Your task to perform on an android device: open chrome and create a bookmark for the current page Image 0: 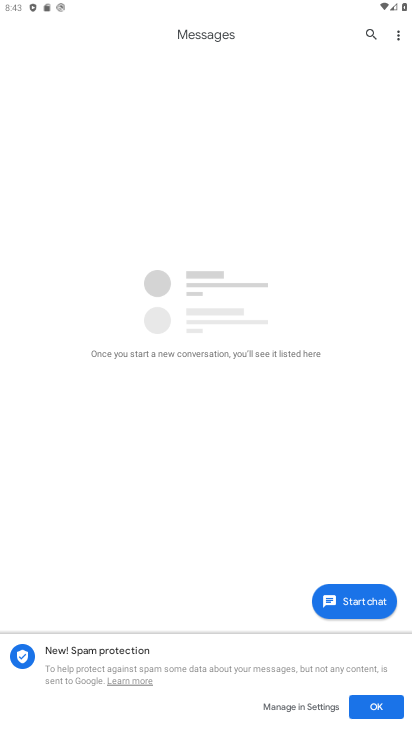
Step 0: click (396, 39)
Your task to perform on an android device: open chrome and create a bookmark for the current page Image 1: 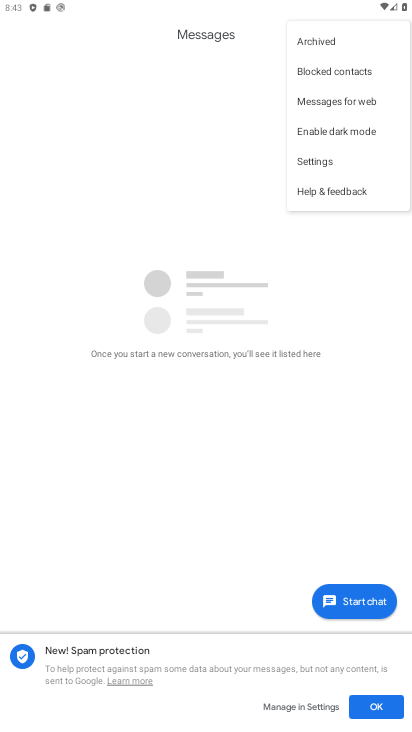
Step 1: press home button
Your task to perform on an android device: open chrome and create a bookmark for the current page Image 2: 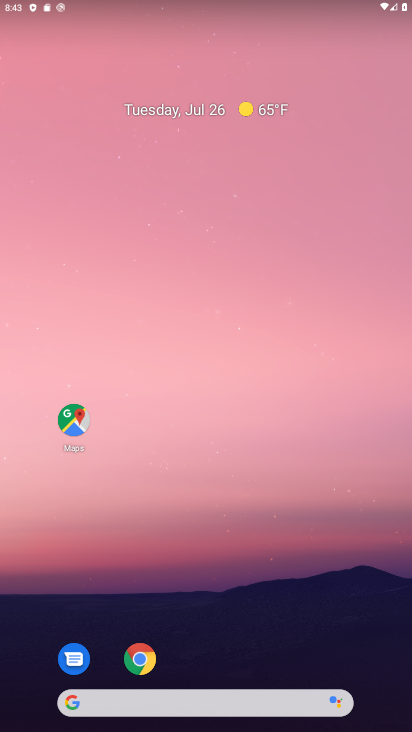
Step 2: click (145, 663)
Your task to perform on an android device: open chrome and create a bookmark for the current page Image 3: 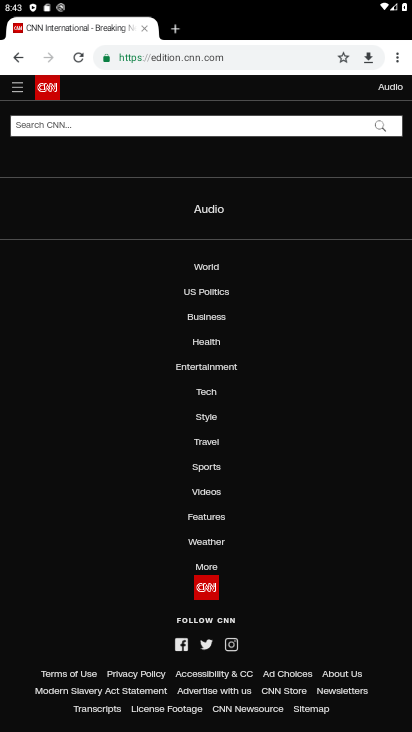
Step 3: click (342, 58)
Your task to perform on an android device: open chrome and create a bookmark for the current page Image 4: 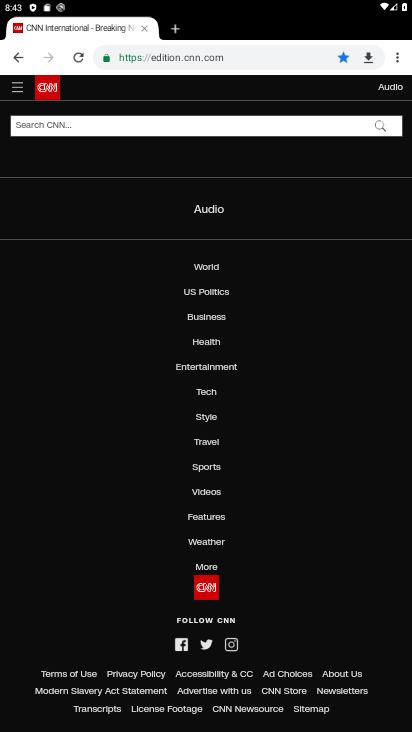
Step 4: task complete